Your task to perform on an android device: change the upload size in google photos Image 0: 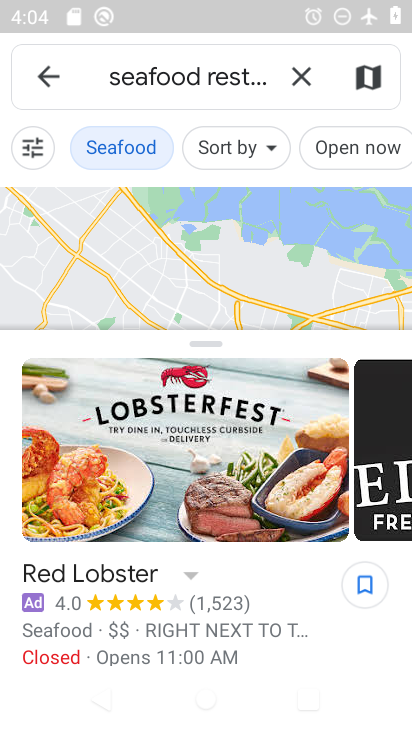
Step 0: press home button
Your task to perform on an android device: change the upload size in google photos Image 1: 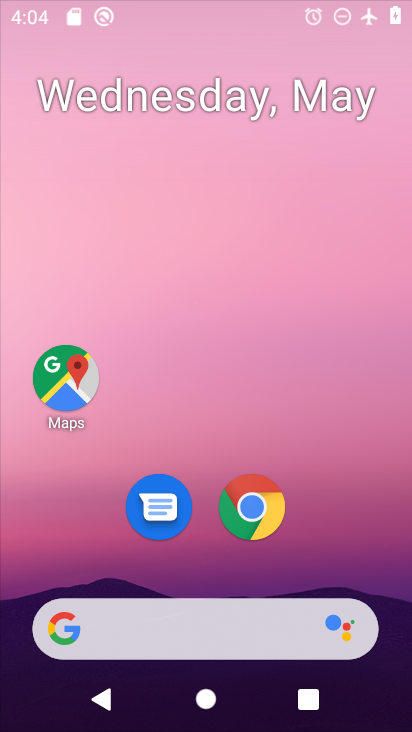
Step 1: drag from (257, 632) to (269, 165)
Your task to perform on an android device: change the upload size in google photos Image 2: 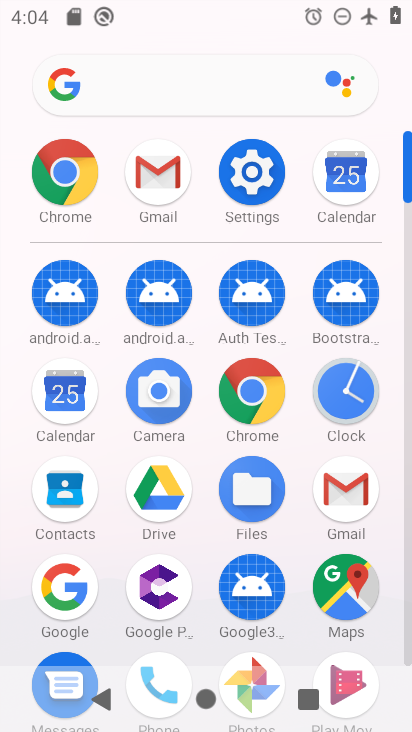
Step 2: drag from (163, 565) to (197, 203)
Your task to perform on an android device: change the upload size in google photos Image 3: 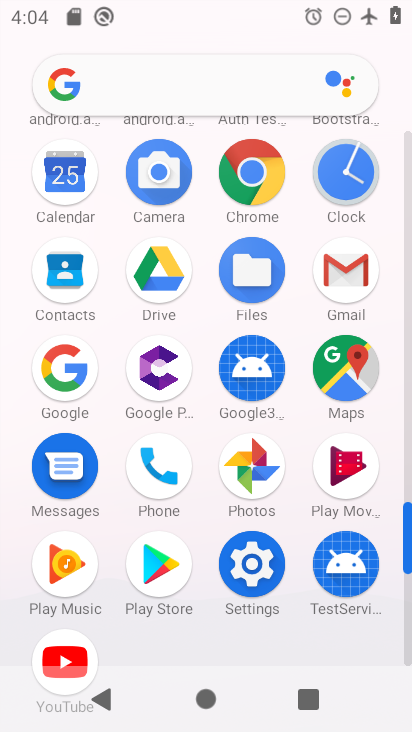
Step 3: click (253, 471)
Your task to perform on an android device: change the upload size in google photos Image 4: 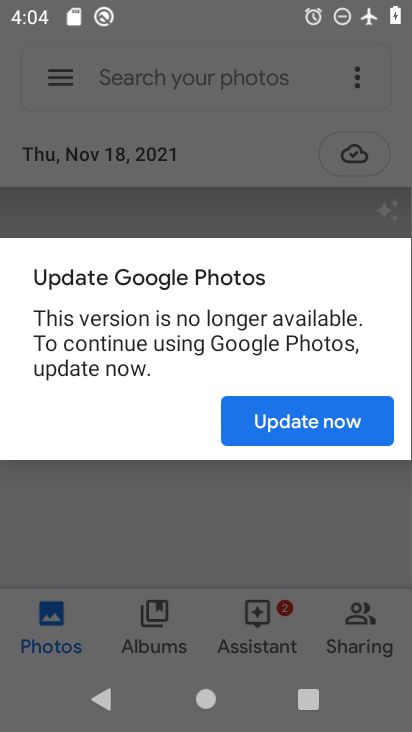
Step 4: task complete